Your task to perform on an android device: Set the phone to "Do not disturb". Image 0: 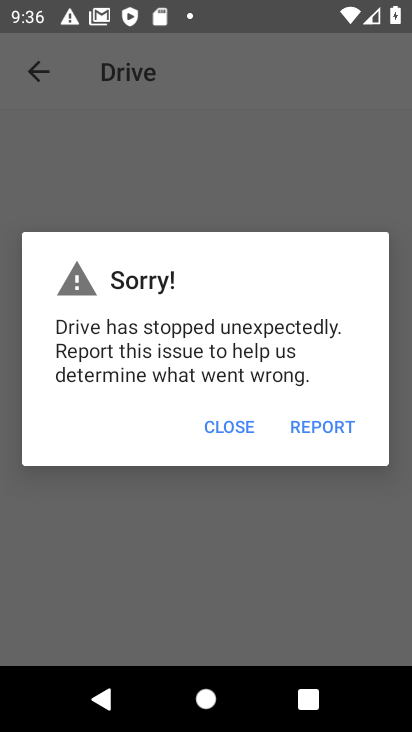
Step 0: press home button
Your task to perform on an android device: Set the phone to "Do not disturb". Image 1: 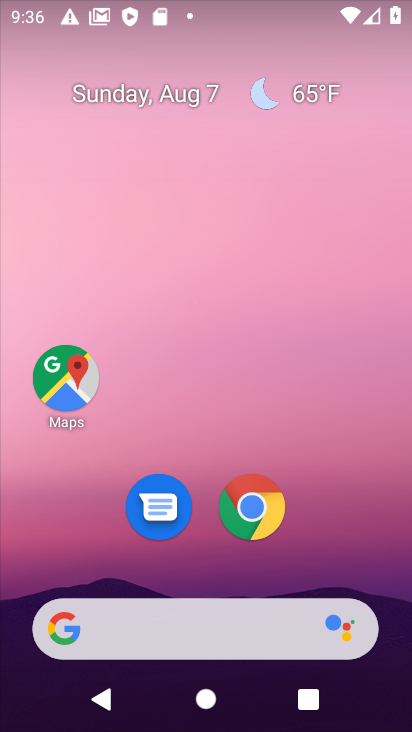
Step 1: drag from (348, 508) to (337, 135)
Your task to perform on an android device: Set the phone to "Do not disturb". Image 2: 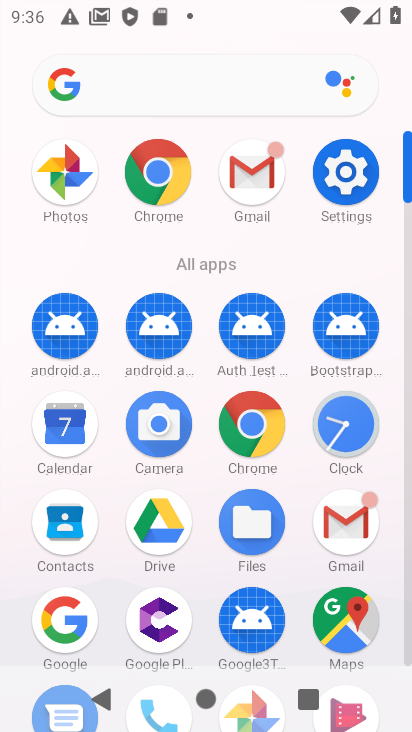
Step 2: drag from (292, 5) to (266, 353)
Your task to perform on an android device: Set the phone to "Do not disturb". Image 3: 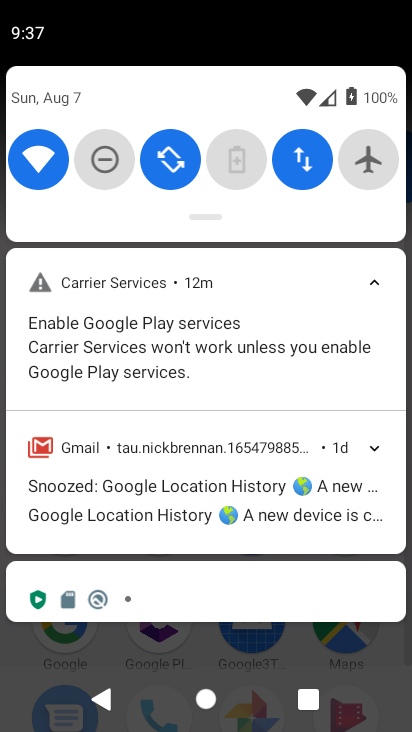
Step 3: click (95, 161)
Your task to perform on an android device: Set the phone to "Do not disturb". Image 4: 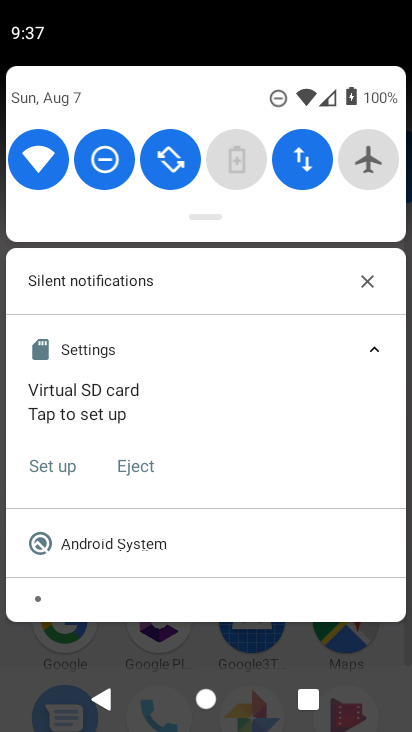
Step 4: task complete